Your task to perform on an android device: toggle sleep mode Image 0: 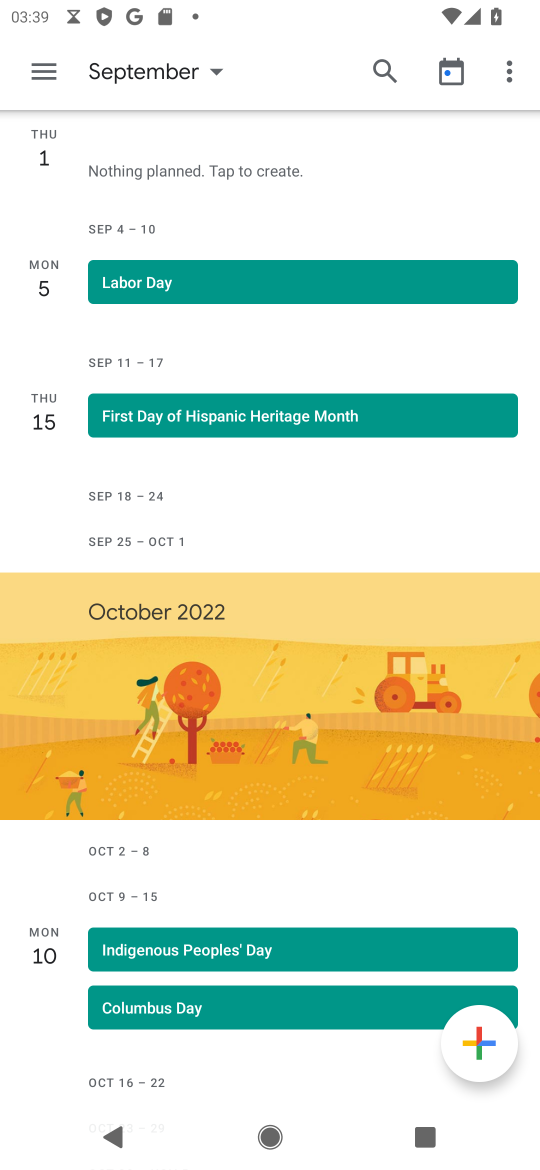
Step 0: press home button
Your task to perform on an android device: toggle sleep mode Image 1: 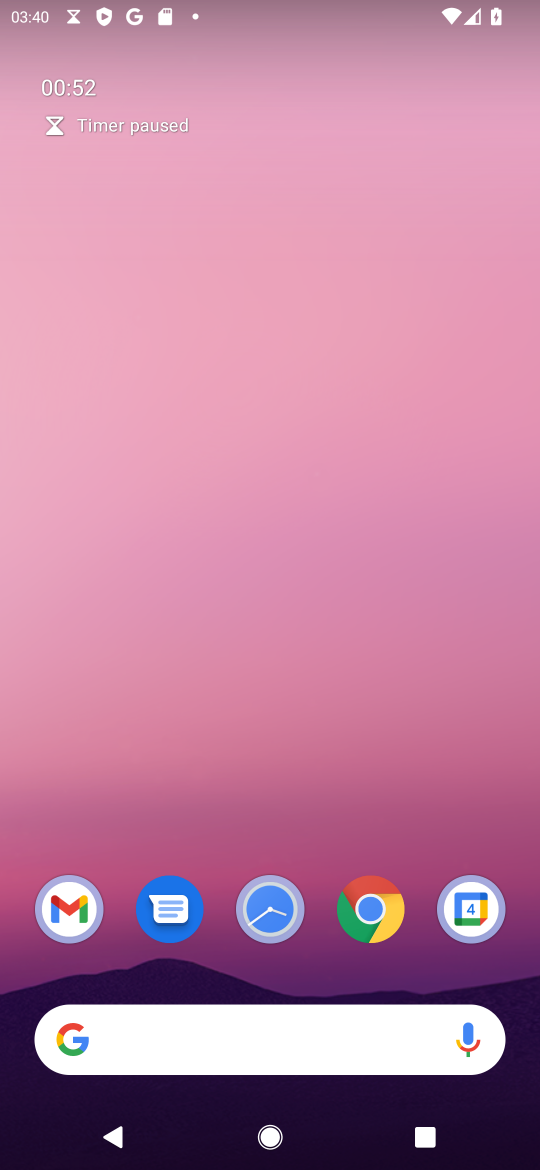
Step 1: drag from (336, 1039) to (471, 446)
Your task to perform on an android device: toggle sleep mode Image 2: 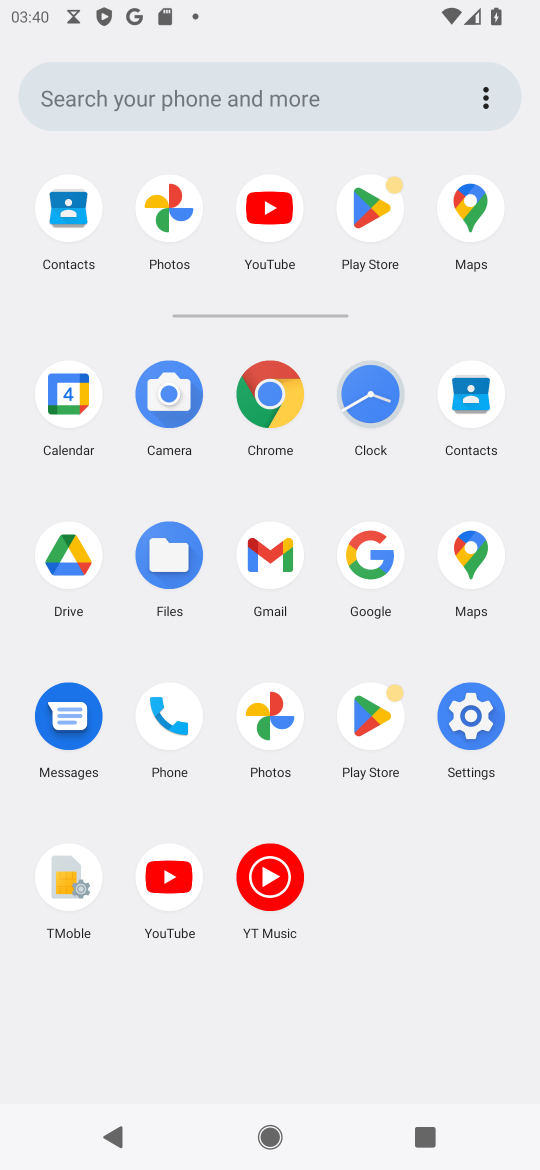
Step 2: click (484, 718)
Your task to perform on an android device: toggle sleep mode Image 3: 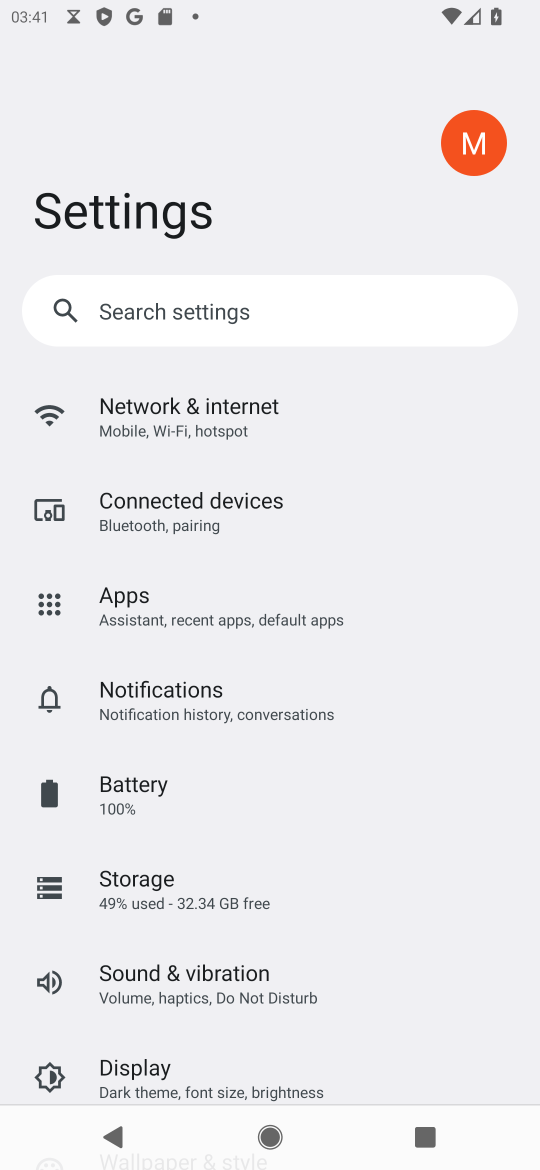
Step 3: drag from (346, 1001) to (448, 557)
Your task to perform on an android device: toggle sleep mode Image 4: 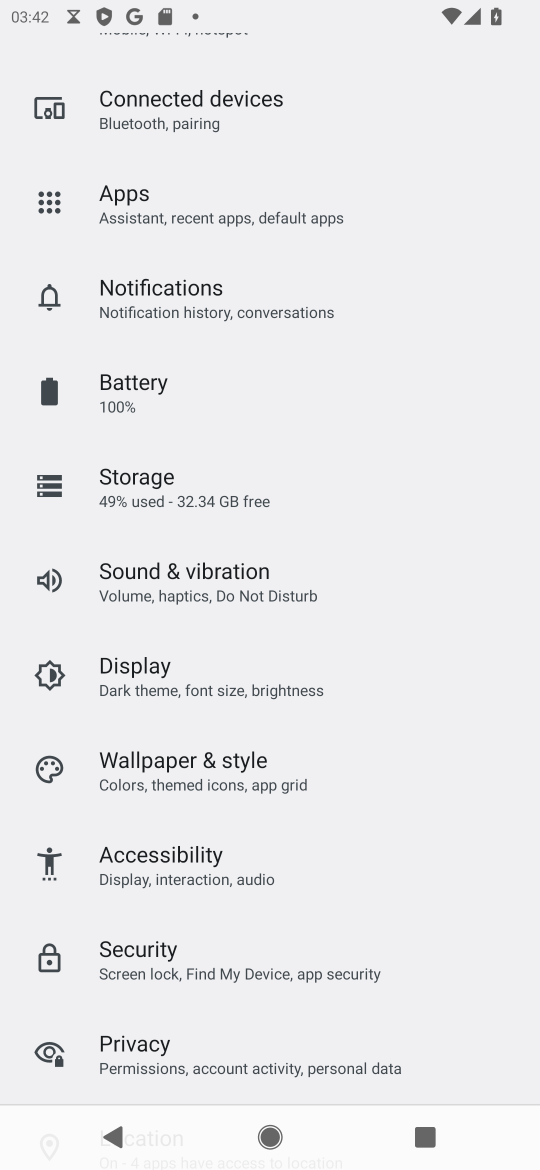
Step 4: click (276, 685)
Your task to perform on an android device: toggle sleep mode Image 5: 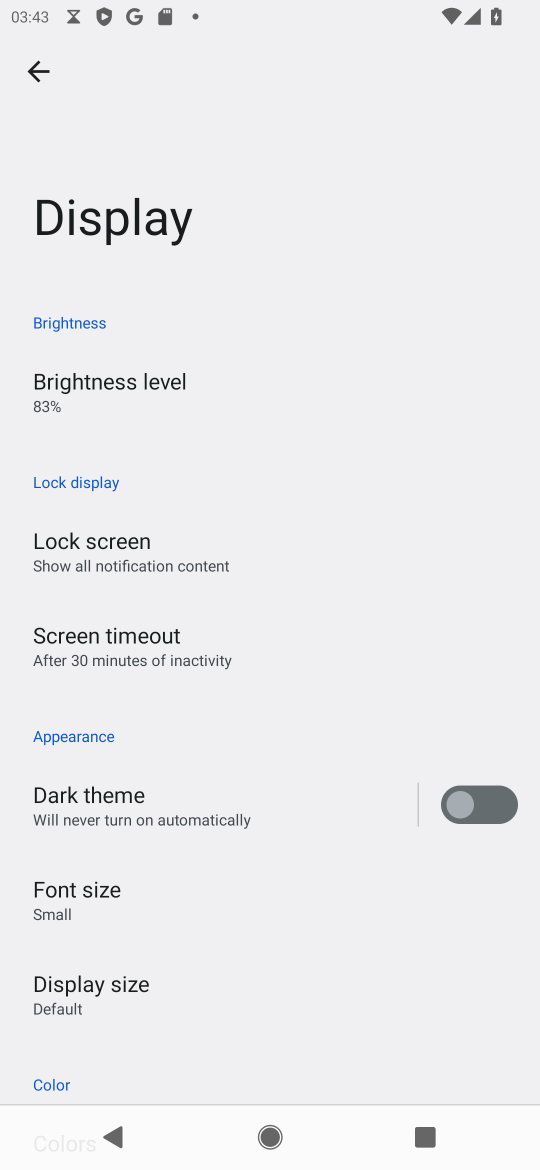
Step 5: task complete